Your task to perform on an android device: uninstall "Viber Messenger" Image 0: 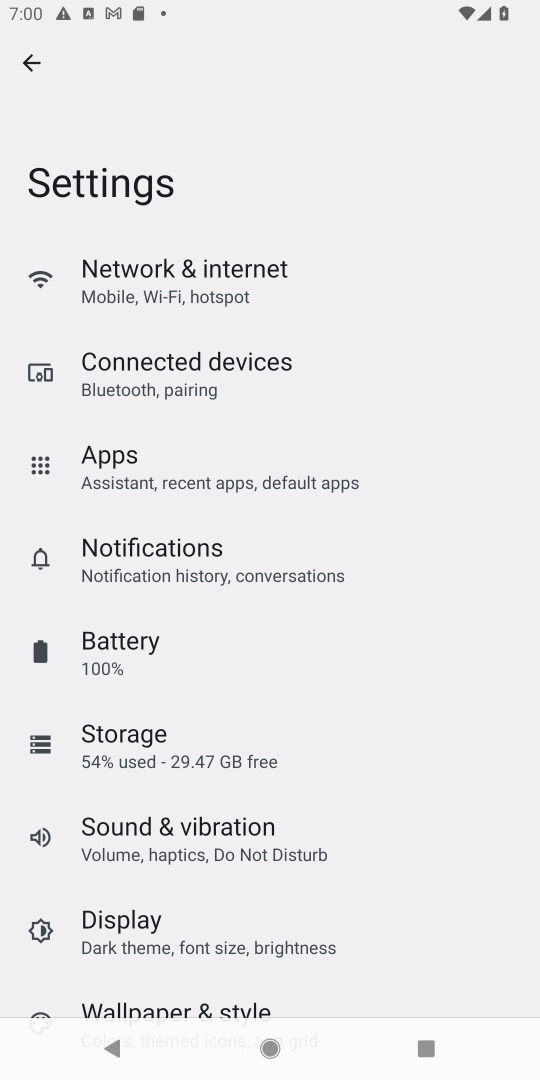
Step 0: press home button
Your task to perform on an android device: uninstall "Viber Messenger" Image 1: 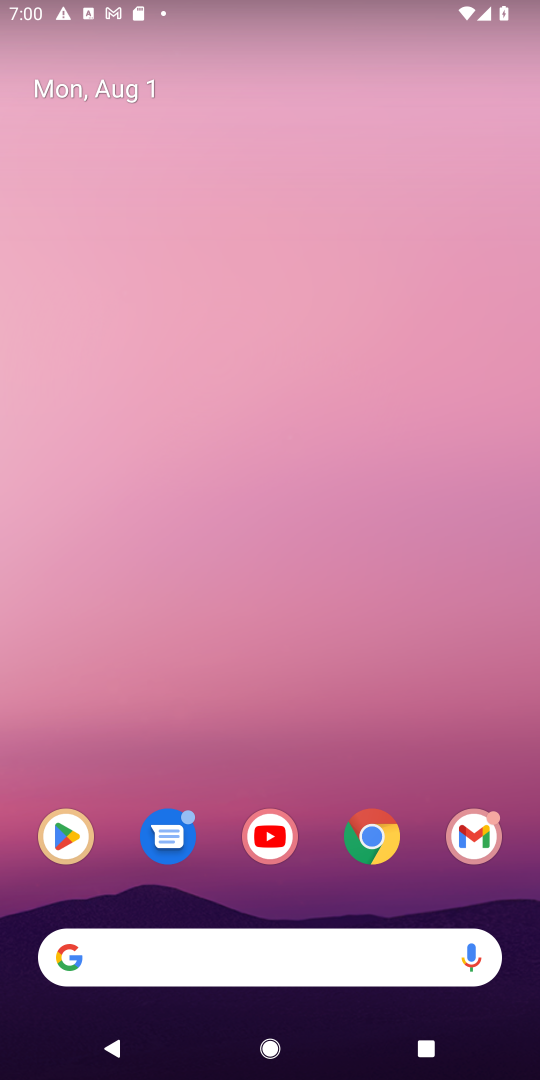
Step 1: click (69, 834)
Your task to perform on an android device: uninstall "Viber Messenger" Image 2: 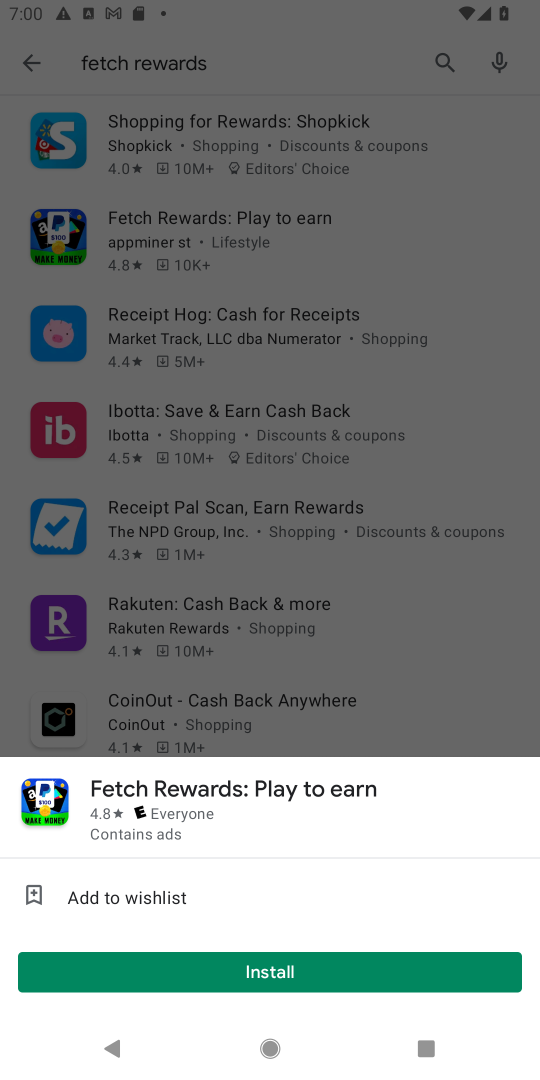
Step 2: click (444, 52)
Your task to perform on an android device: uninstall "Viber Messenger" Image 3: 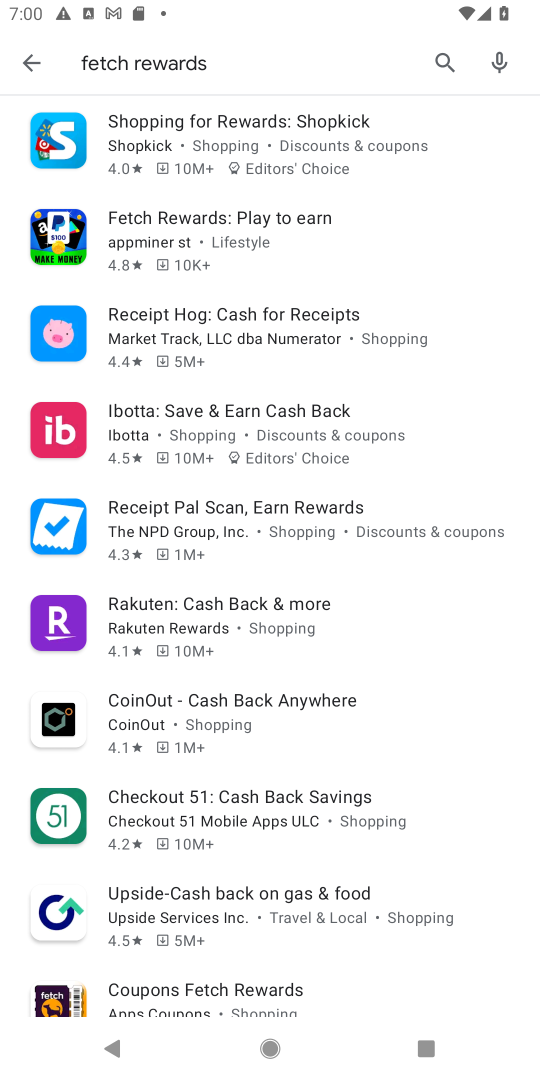
Step 3: click (438, 59)
Your task to perform on an android device: uninstall "Viber Messenger" Image 4: 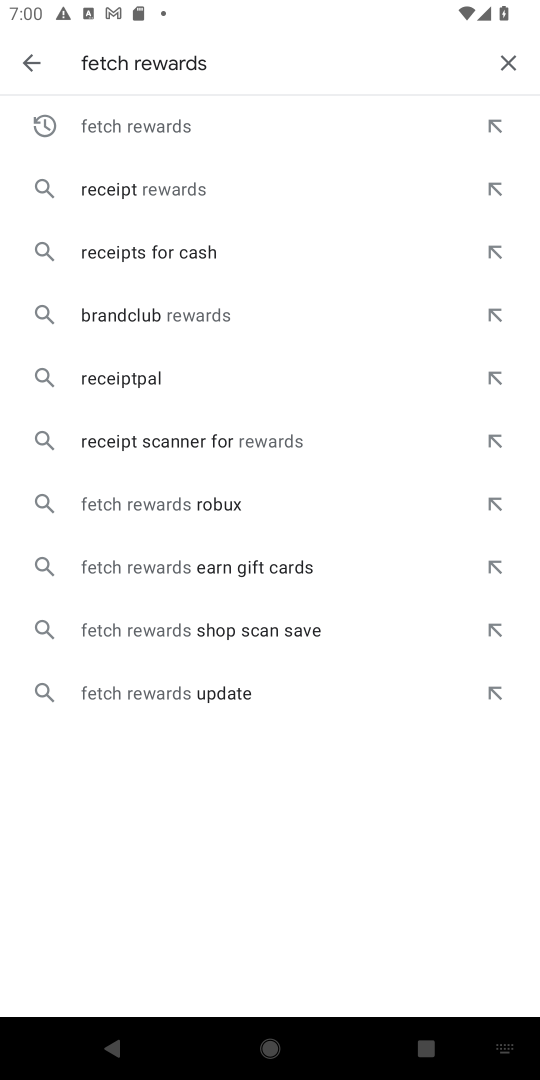
Step 4: click (500, 57)
Your task to perform on an android device: uninstall "Viber Messenger" Image 5: 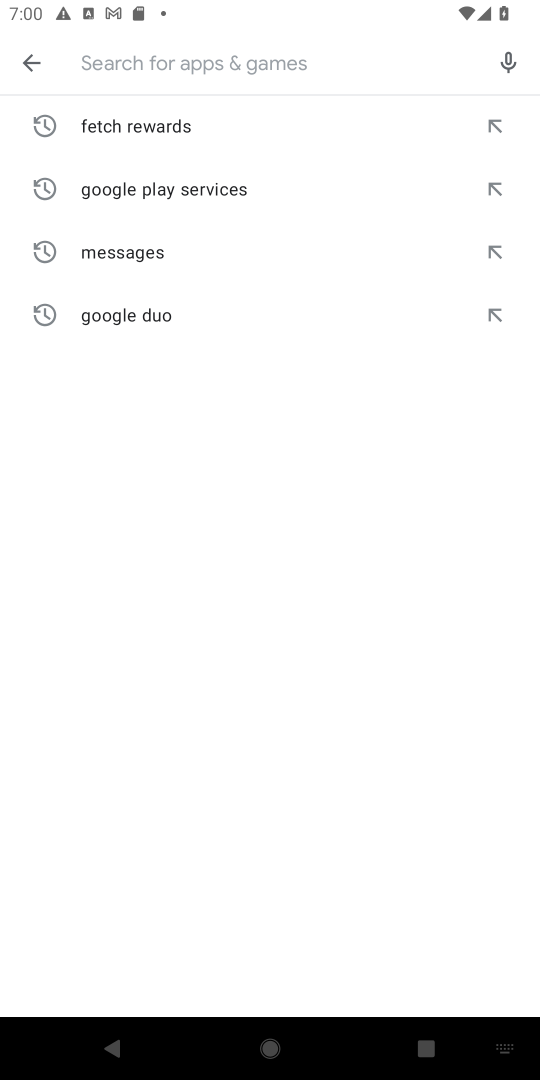
Step 5: type "Viber Messenger"
Your task to perform on an android device: uninstall "Viber Messenger" Image 6: 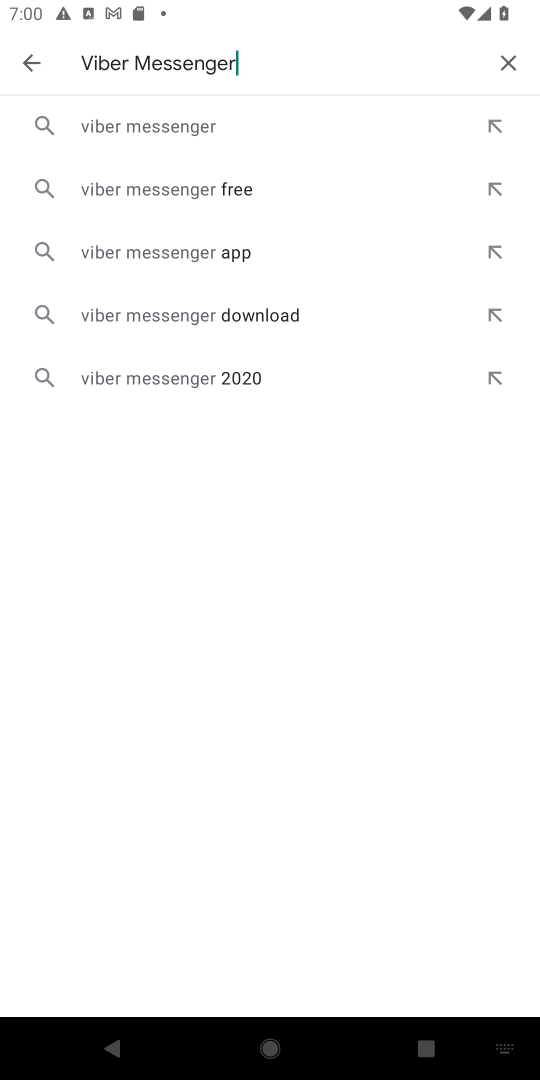
Step 6: click (200, 114)
Your task to perform on an android device: uninstall "Viber Messenger" Image 7: 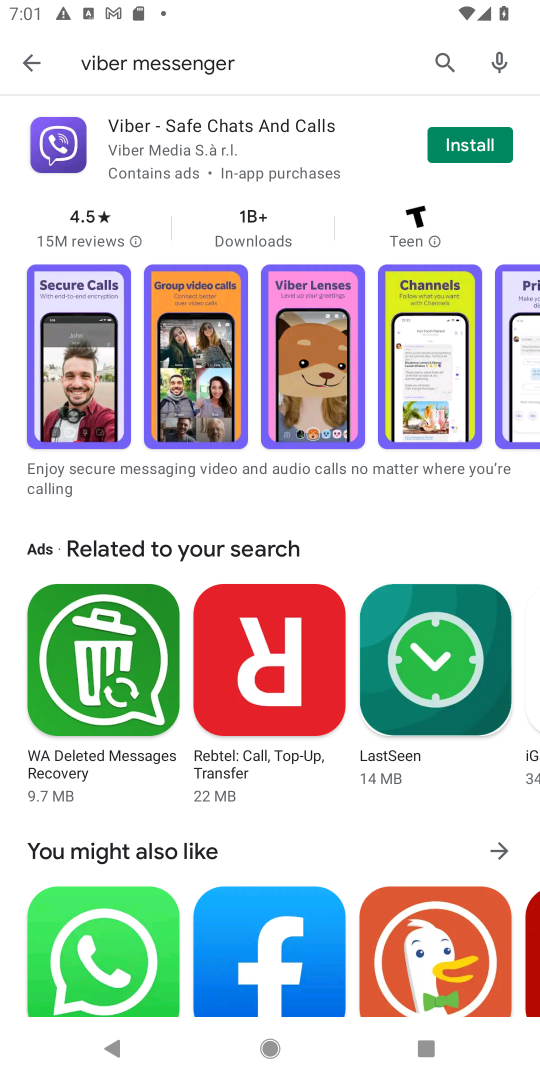
Step 7: task complete